Your task to perform on an android device: see sites visited before in the chrome app Image 0: 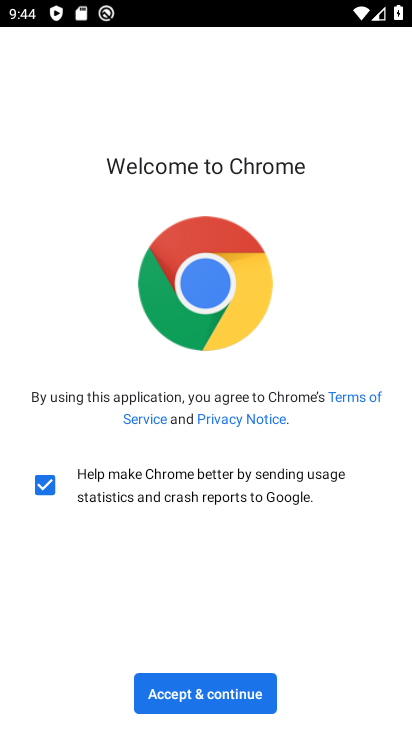
Step 0: click (183, 693)
Your task to perform on an android device: see sites visited before in the chrome app Image 1: 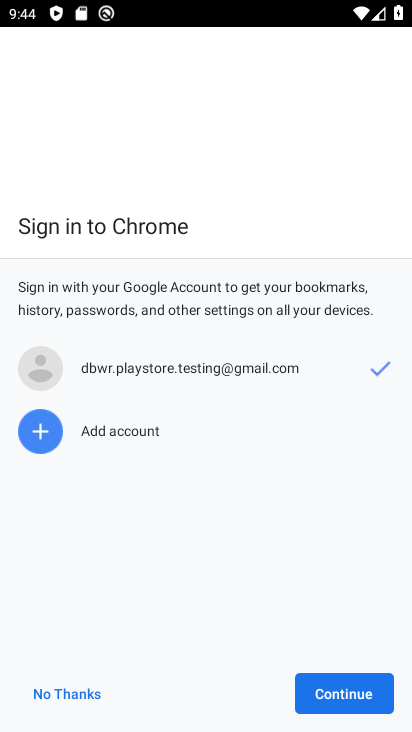
Step 1: click (338, 692)
Your task to perform on an android device: see sites visited before in the chrome app Image 2: 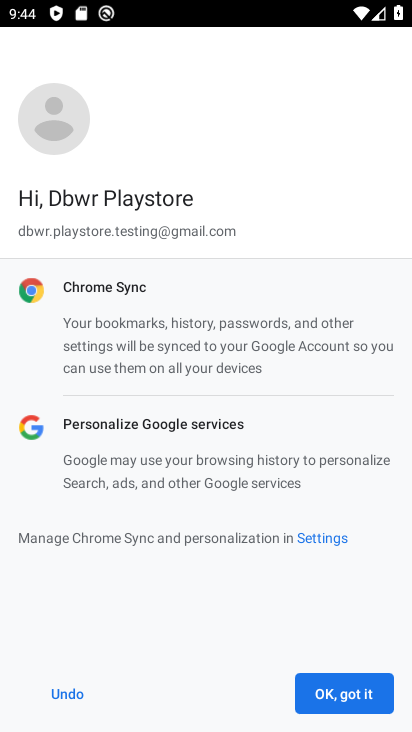
Step 2: click (338, 692)
Your task to perform on an android device: see sites visited before in the chrome app Image 3: 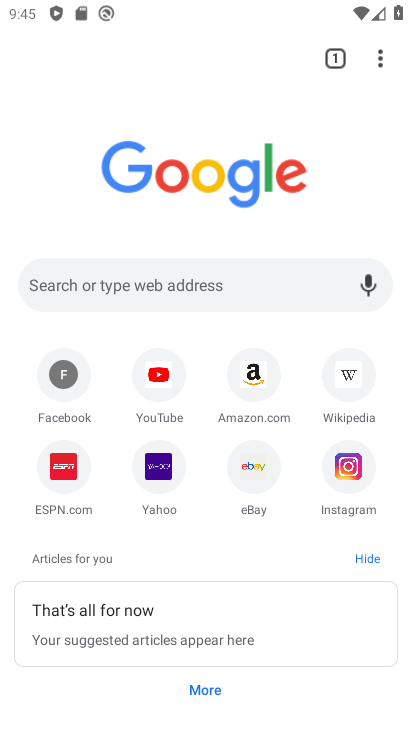
Step 3: click (379, 61)
Your task to perform on an android device: see sites visited before in the chrome app Image 4: 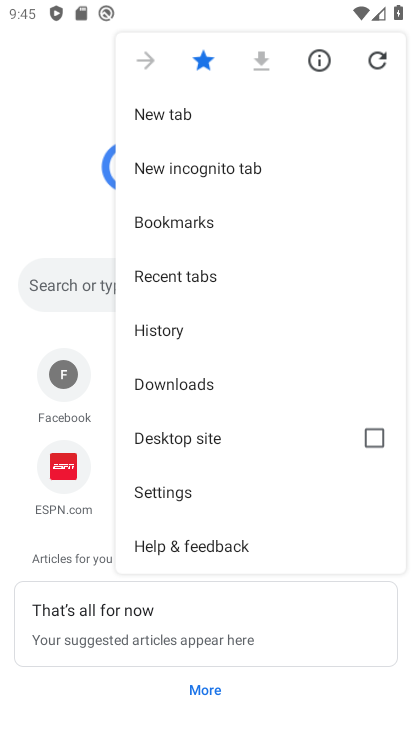
Step 4: click (172, 330)
Your task to perform on an android device: see sites visited before in the chrome app Image 5: 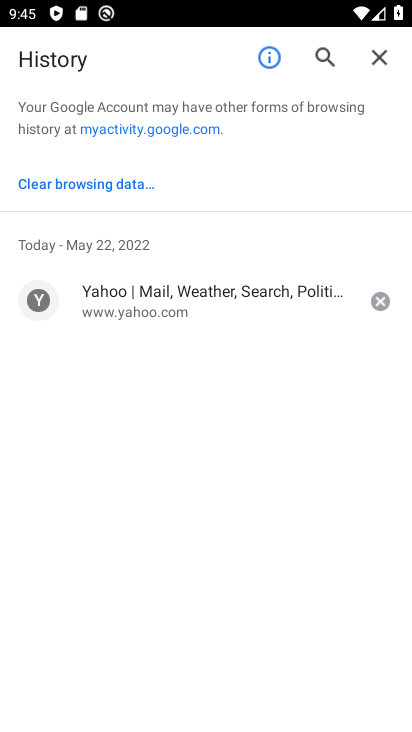
Step 5: task complete